Your task to perform on an android device: turn off notifications settings in the gmail app Image 0: 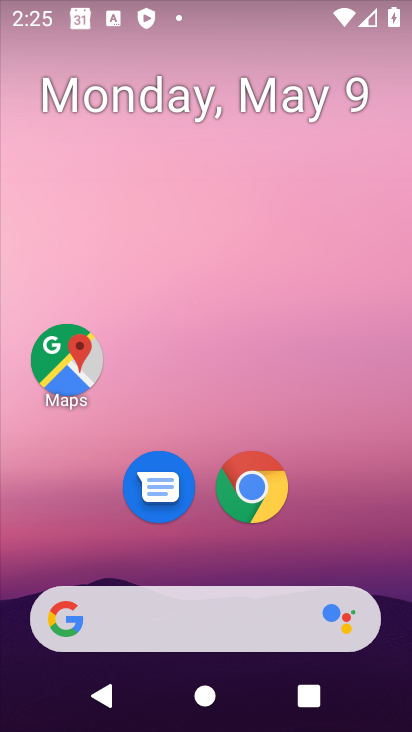
Step 0: drag from (314, 522) to (276, 64)
Your task to perform on an android device: turn off notifications settings in the gmail app Image 1: 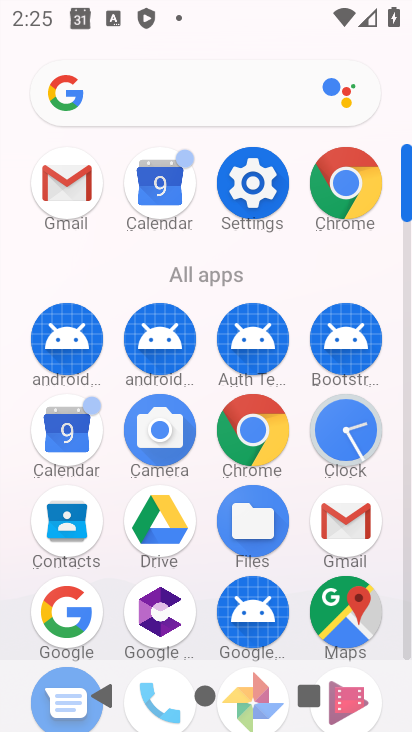
Step 1: click (79, 181)
Your task to perform on an android device: turn off notifications settings in the gmail app Image 2: 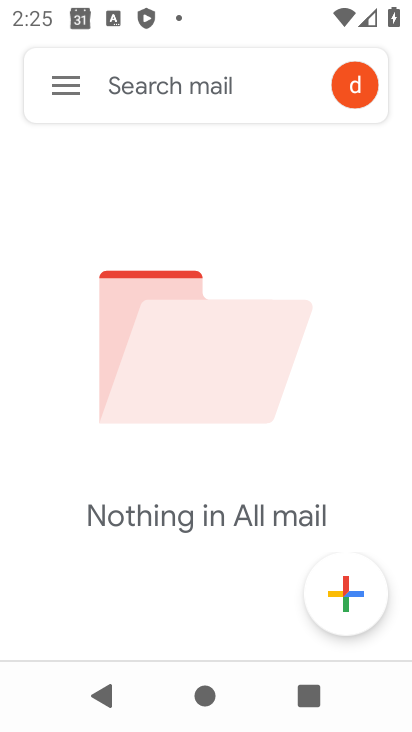
Step 2: click (64, 78)
Your task to perform on an android device: turn off notifications settings in the gmail app Image 3: 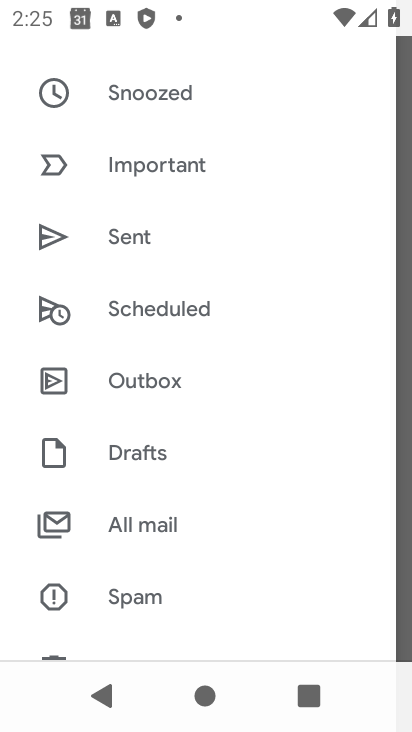
Step 3: drag from (257, 526) to (237, 126)
Your task to perform on an android device: turn off notifications settings in the gmail app Image 4: 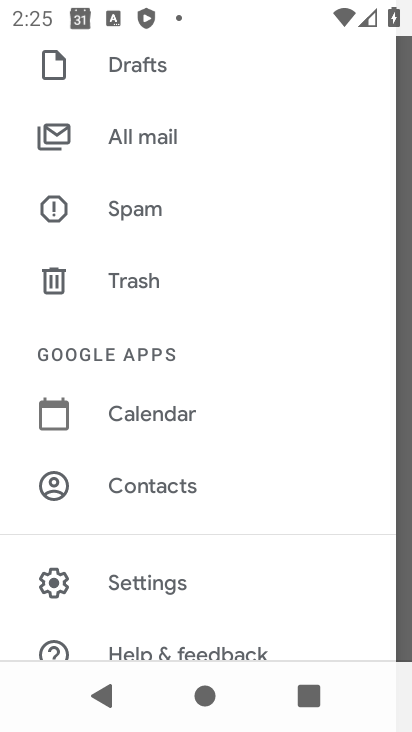
Step 4: click (169, 570)
Your task to perform on an android device: turn off notifications settings in the gmail app Image 5: 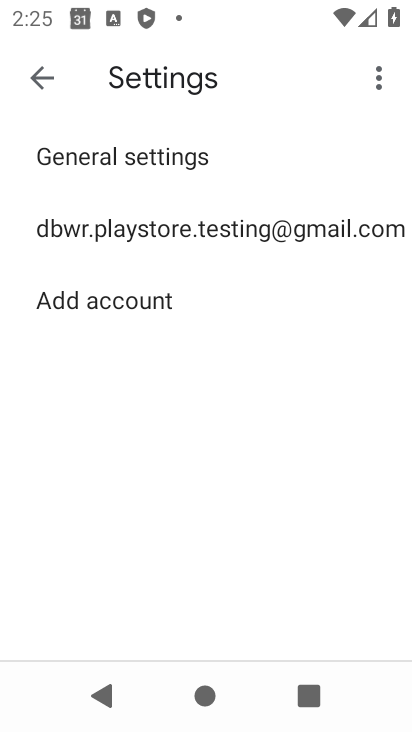
Step 5: click (208, 219)
Your task to perform on an android device: turn off notifications settings in the gmail app Image 6: 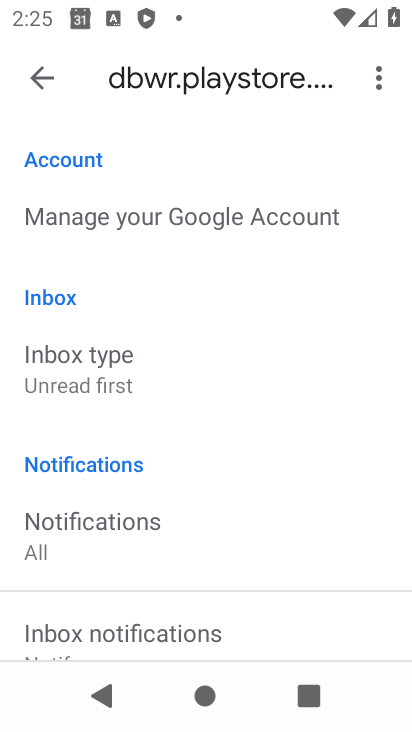
Step 6: drag from (150, 575) to (189, 142)
Your task to perform on an android device: turn off notifications settings in the gmail app Image 7: 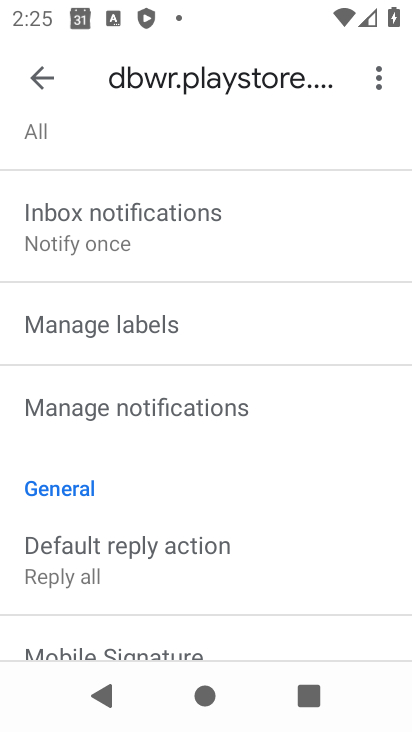
Step 7: click (211, 403)
Your task to perform on an android device: turn off notifications settings in the gmail app Image 8: 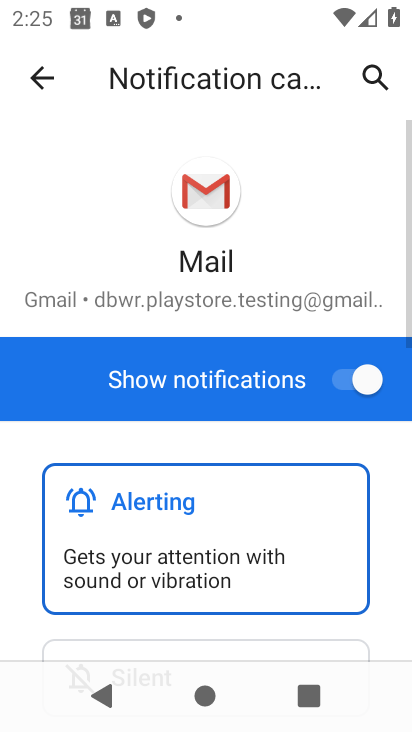
Step 8: click (335, 372)
Your task to perform on an android device: turn off notifications settings in the gmail app Image 9: 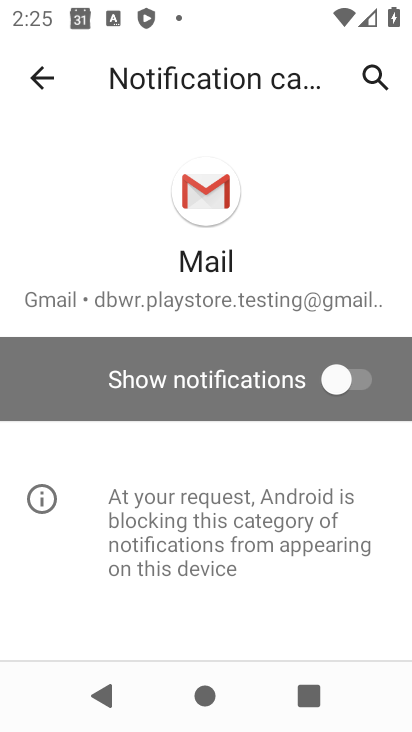
Step 9: task complete